Your task to perform on an android device: Open calendar and show me the third week of next month Image 0: 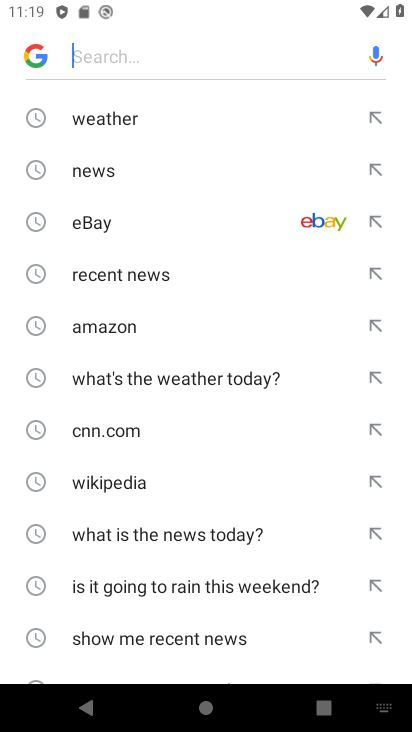
Step 0: press home button
Your task to perform on an android device: Open calendar and show me the third week of next month Image 1: 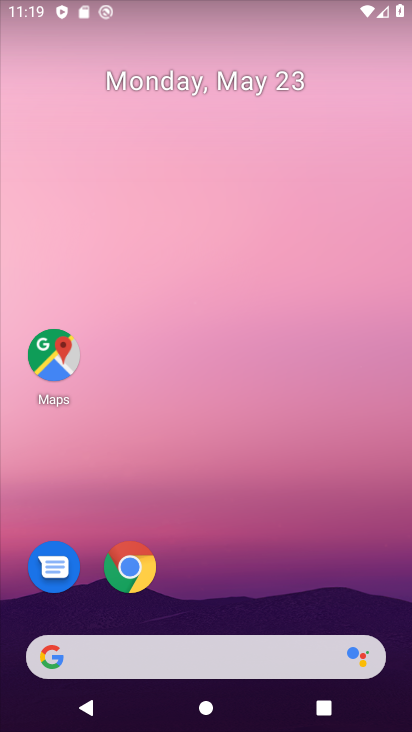
Step 1: drag from (310, 582) to (309, 148)
Your task to perform on an android device: Open calendar and show me the third week of next month Image 2: 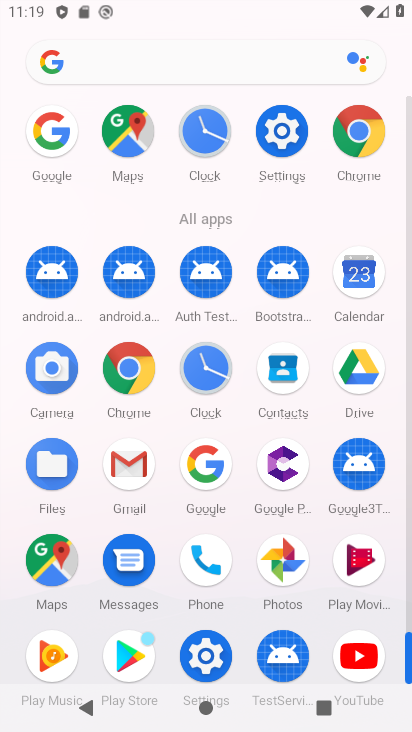
Step 2: click (362, 291)
Your task to perform on an android device: Open calendar and show me the third week of next month Image 3: 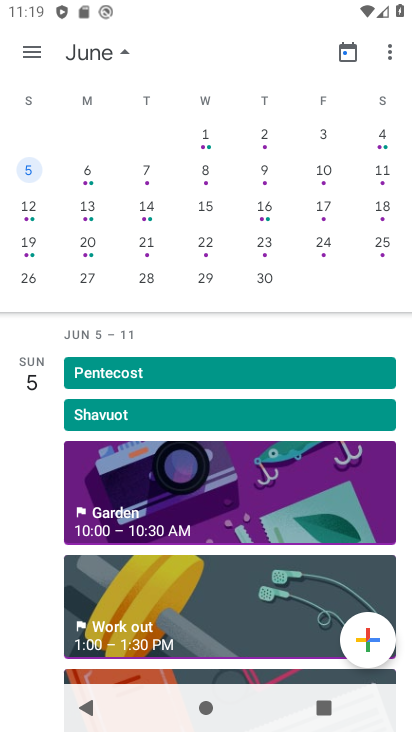
Step 3: drag from (341, 187) to (253, 197)
Your task to perform on an android device: Open calendar and show me the third week of next month Image 4: 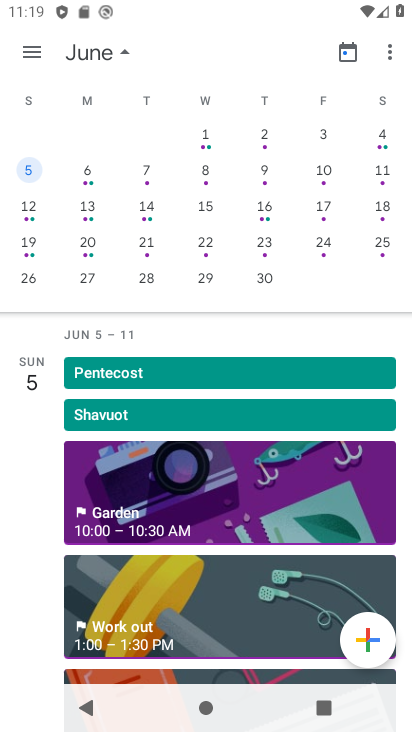
Step 4: click (36, 217)
Your task to perform on an android device: Open calendar and show me the third week of next month Image 5: 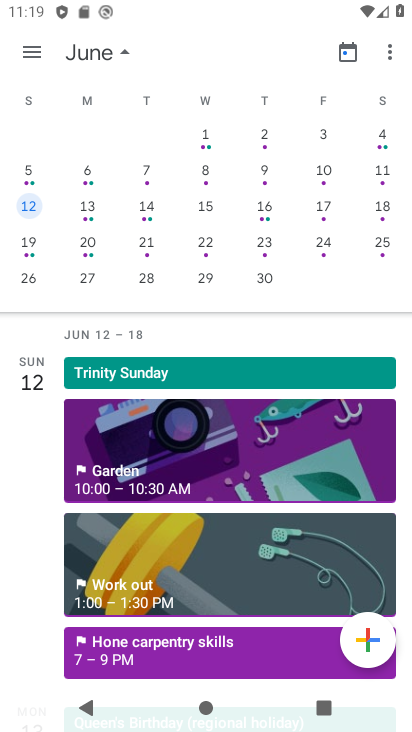
Step 5: task complete